Your task to perform on an android device: Open maps Image 0: 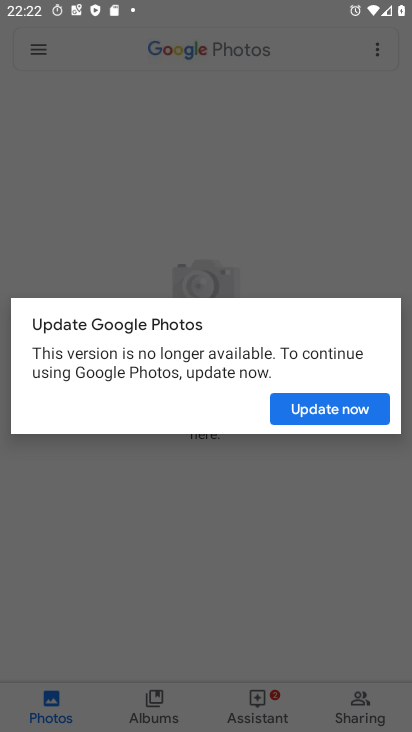
Step 0: press back button
Your task to perform on an android device: Open maps Image 1: 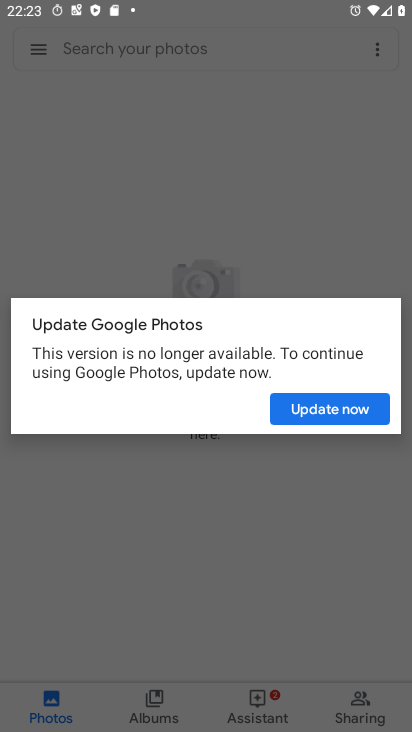
Step 1: press home button
Your task to perform on an android device: Open maps Image 2: 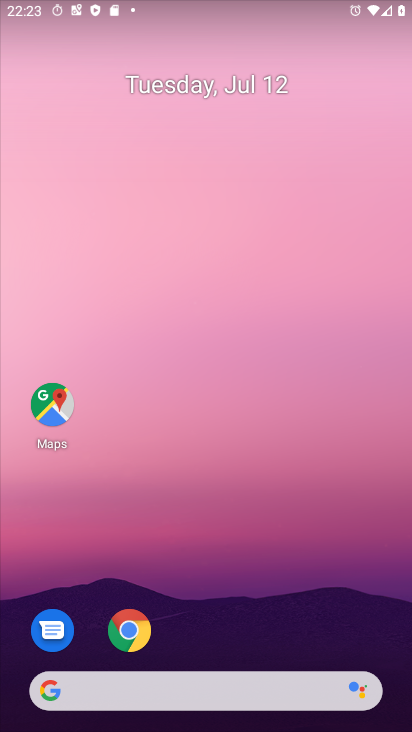
Step 2: click (61, 420)
Your task to perform on an android device: Open maps Image 3: 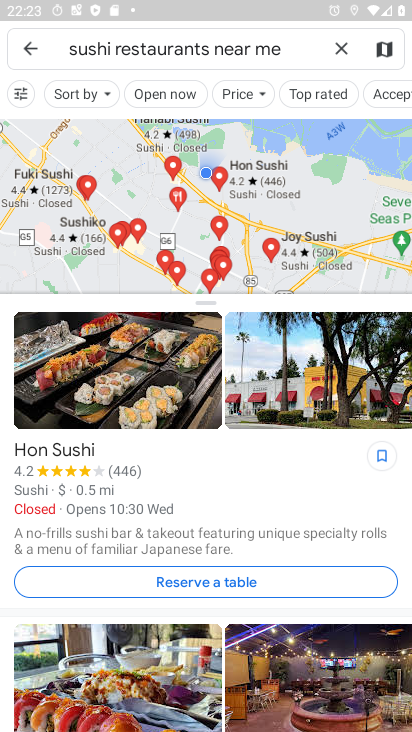
Step 3: task complete